Your task to perform on an android device: turn on data saver in the chrome app Image 0: 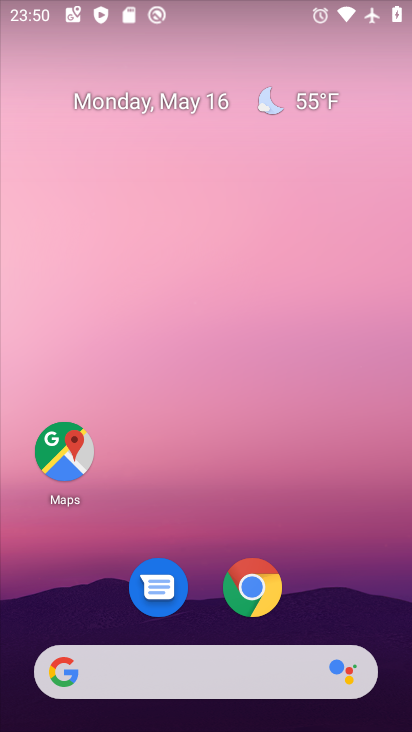
Step 0: drag from (320, 582) to (301, 56)
Your task to perform on an android device: turn on data saver in the chrome app Image 1: 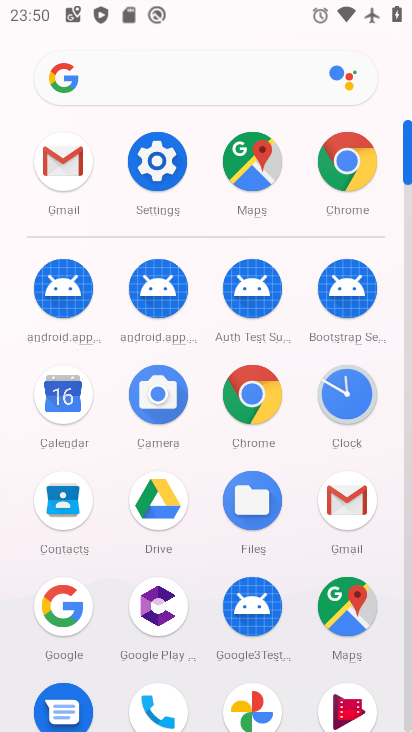
Step 1: drag from (20, 519) to (20, 256)
Your task to perform on an android device: turn on data saver in the chrome app Image 2: 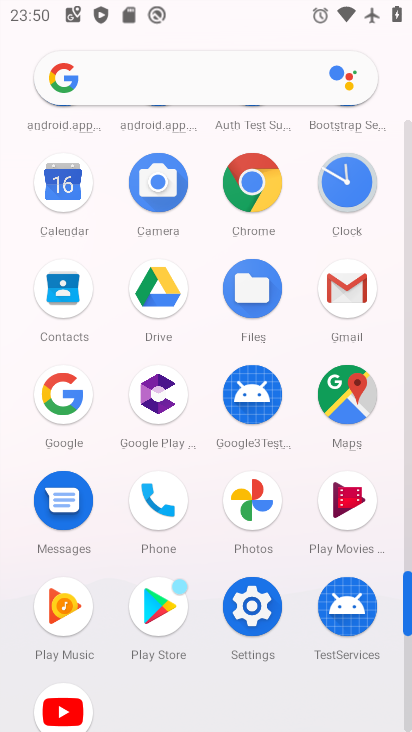
Step 2: click (247, 181)
Your task to perform on an android device: turn on data saver in the chrome app Image 3: 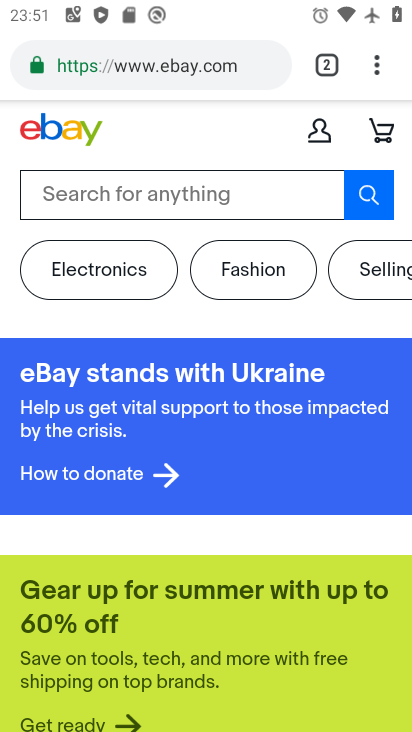
Step 3: drag from (378, 70) to (166, 625)
Your task to perform on an android device: turn on data saver in the chrome app Image 4: 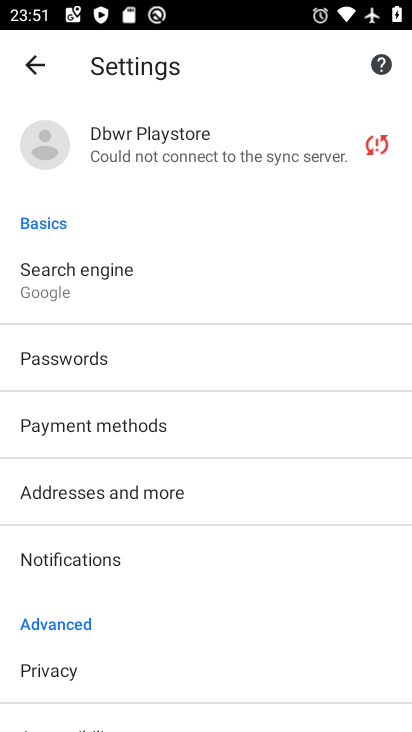
Step 4: drag from (207, 651) to (227, 217)
Your task to perform on an android device: turn on data saver in the chrome app Image 5: 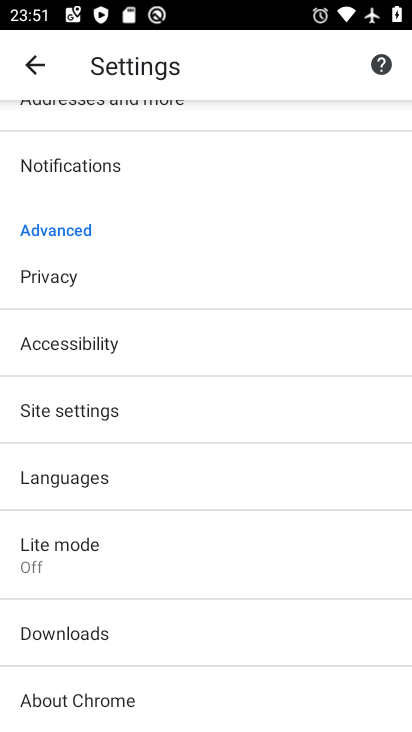
Step 5: click (126, 543)
Your task to perform on an android device: turn on data saver in the chrome app Image 6: 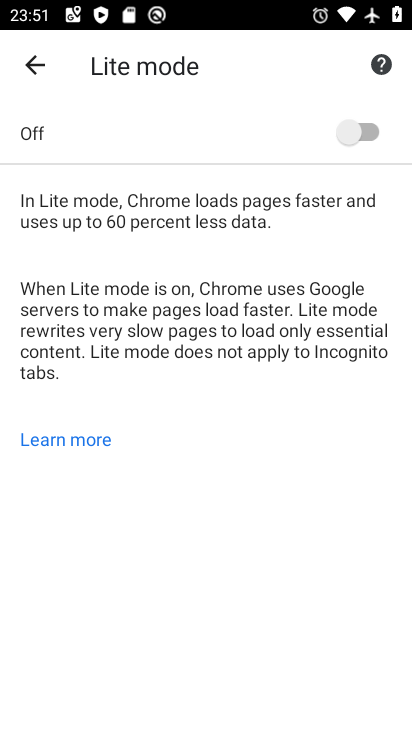
Step 6: click (364, 125)
Your task to perform on an android device: turn on data saver in the chrome app Image 7: 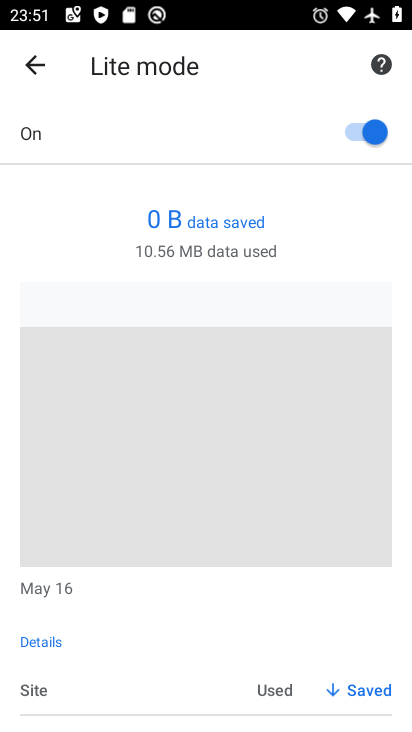
Step 7: task complete